Your task to perform on an android device: turn off notifications settings in the gmail app Image 0: 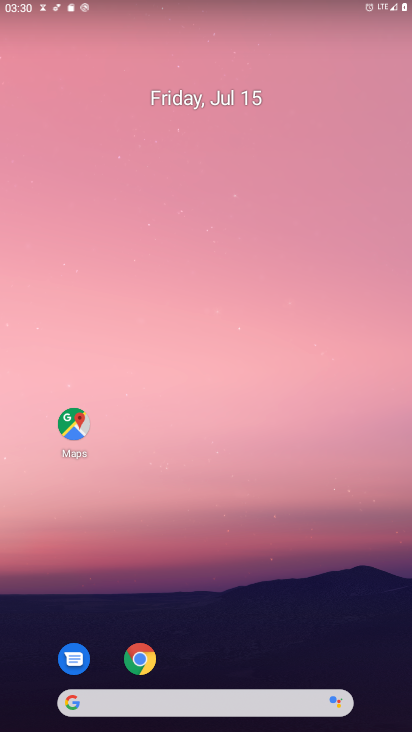
Step 0: drag from (270, 680) to (270, 335)
Your task to perform on an android device: turn off notifications settings in the gmail app Image 1: 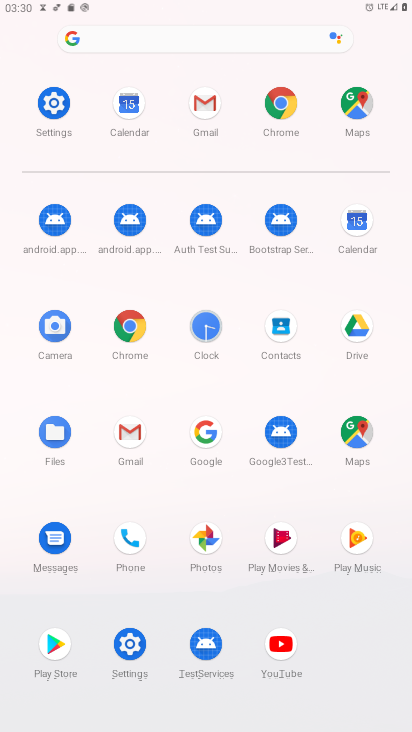
Step 1: click (127, 426)
Your task to perform on an android device: turn off notifications settings in the gmail app Image 2: 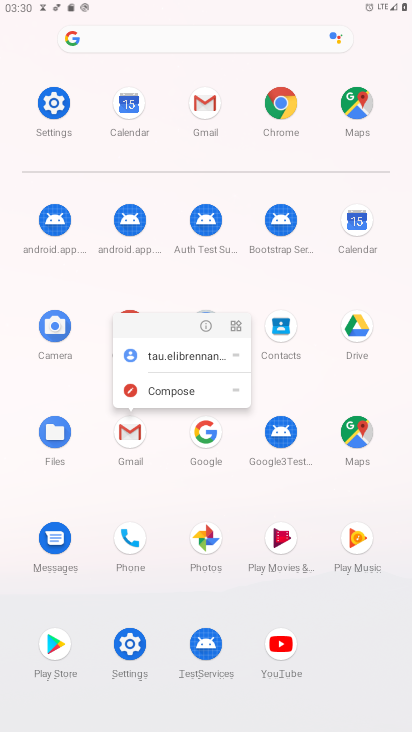
Step 2: click (123, 422)
Your task to perform on an android device: turn off notifications settings in the gmail app Image 3: 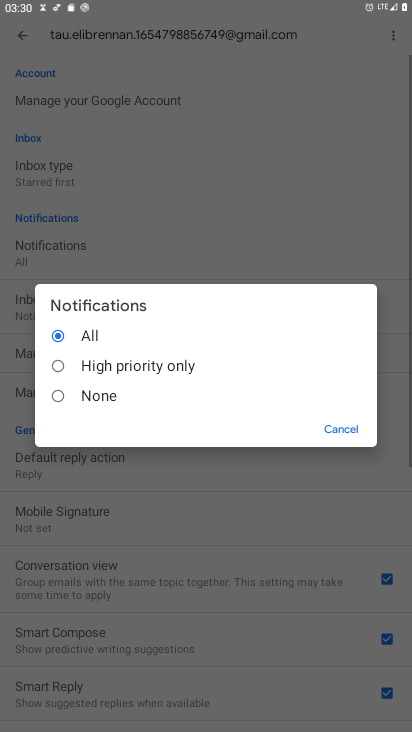
Step 3: click (103, 394)
Your task to perform on an android device: turn off notifications settings in the gmail app Image 4: 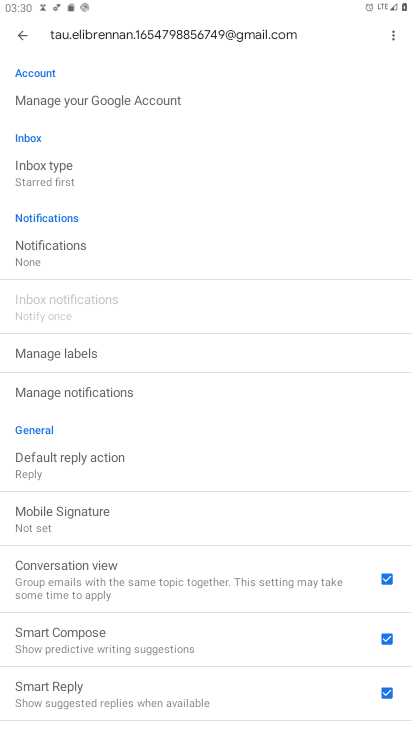
Step 4: click (70, 228)
Your task to perform on an android device: turn off notifications settings in the gmail app Image 5: 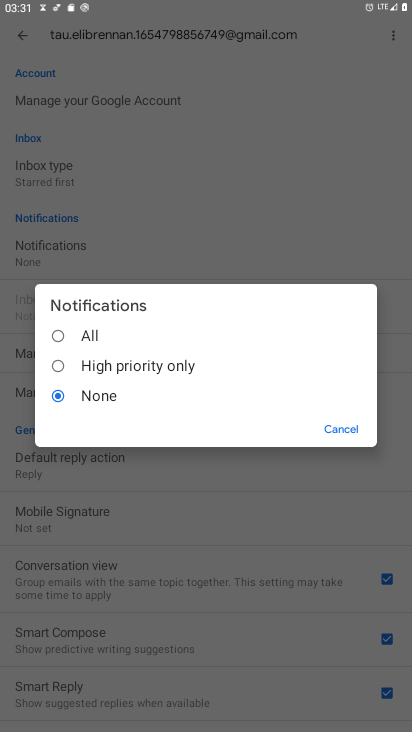
Step 5: task complete